Your task to perform on an android device: Search for sony triple a on amazon.com, select the first entry, add it to the cart, then select checkout. Image 0: 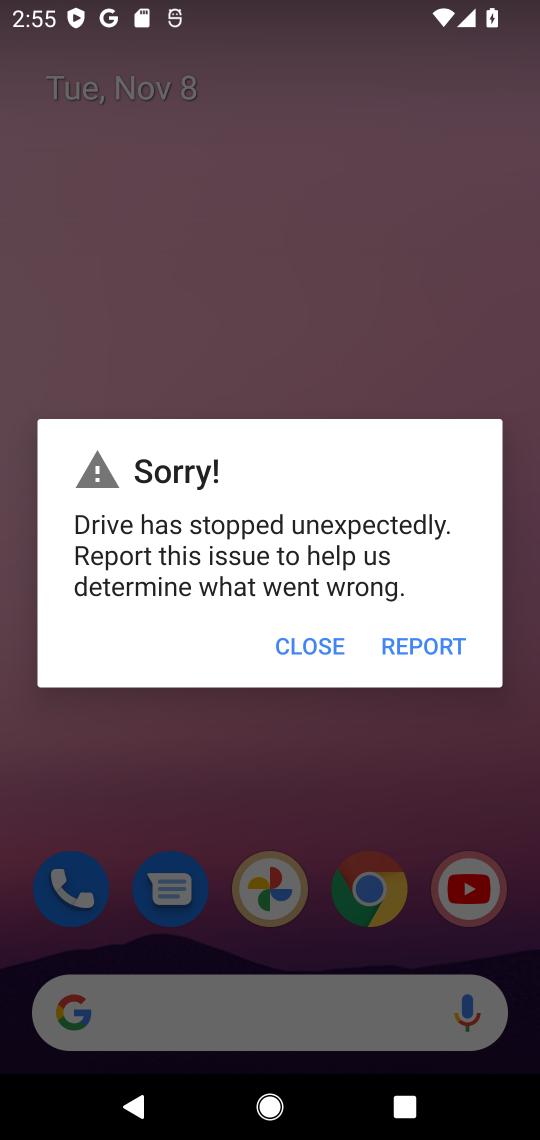
Step 0: press home button
Your task to perform on an android device: Search for sony triple a on amazon.com, select the first entry, add it to the cart, then select checkout. Image 1: 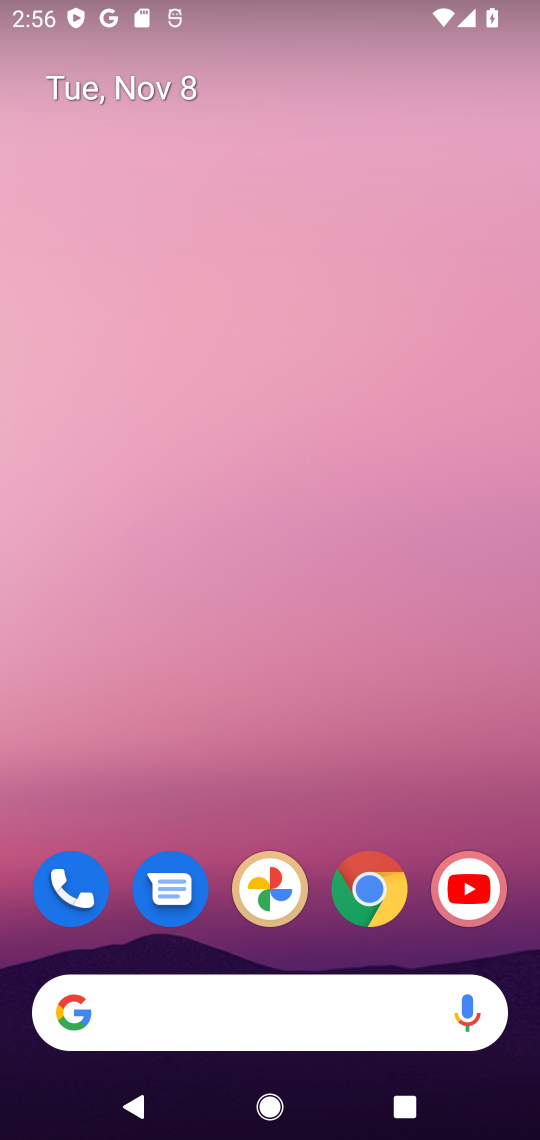
Step 1: click (382, 893)
Your task to perform on an android device: Search for sony triple a on amazon.com, select the first entry, add it to the cart, then select checkout. Image 2: 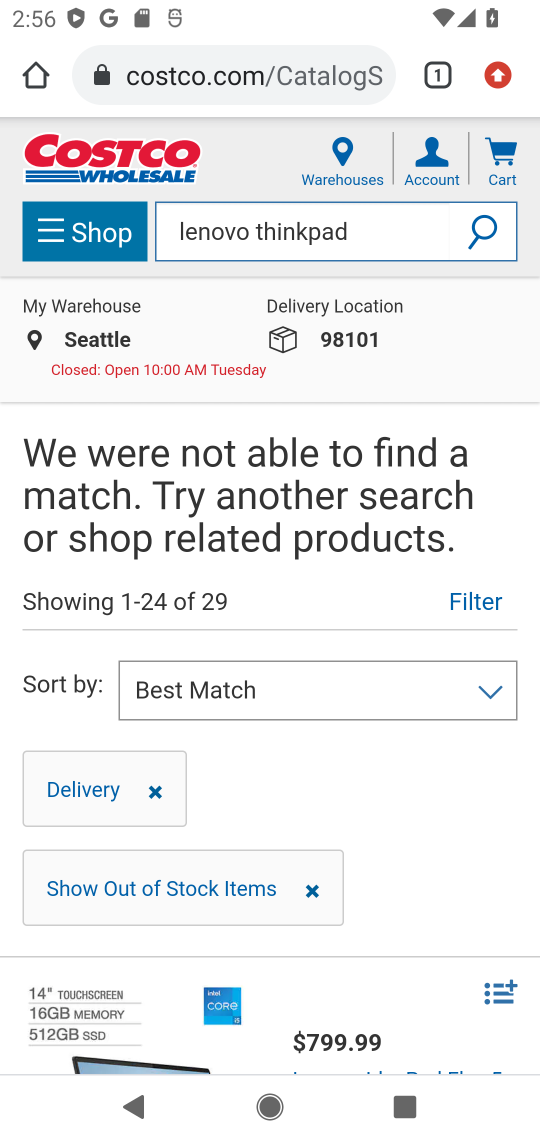
Step 2: click (221, 85)
Your task to perform on an android device: Search for sony triple a on amazon.com, select the first entry, add it to the cart, then select checkout. Image 3: 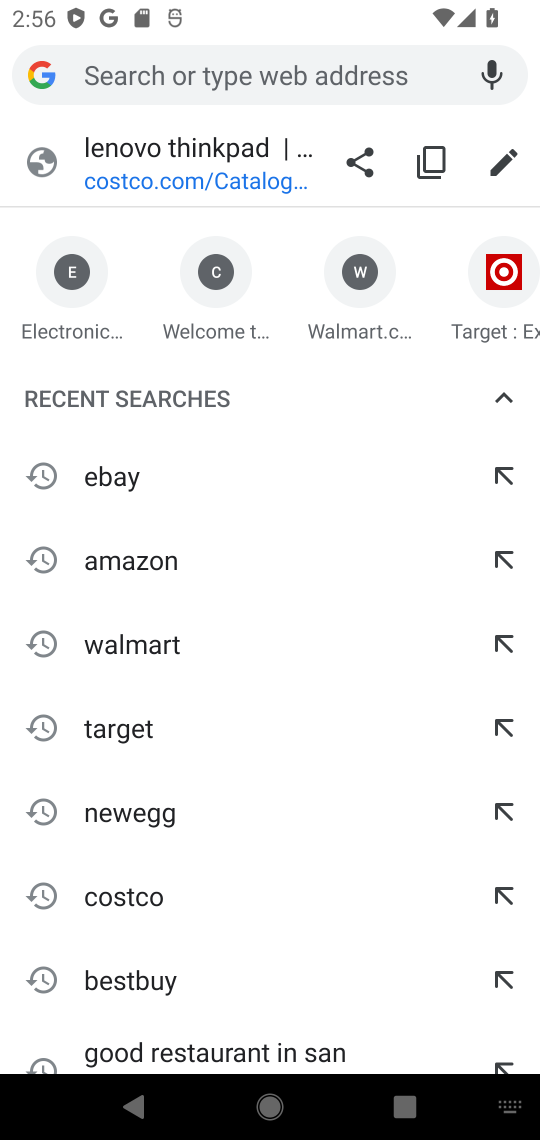
Step 3: type "amazon.com"
Your task to perform on an android device: Search for sony triple a on amazon.com, select the first entry, add it to the cart, then select checkout. Image 4: 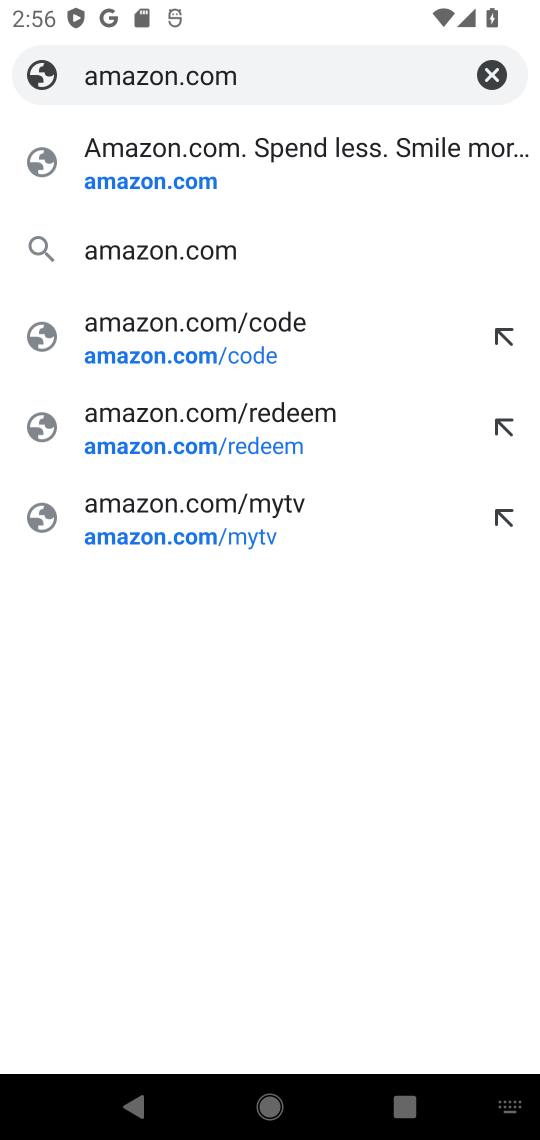
Step 4: click (160, 190)
Your task to perform on an android device: Search for sony triple a on amazon.com, select the first entry, add it to the cart, then select checkout. Image 5: 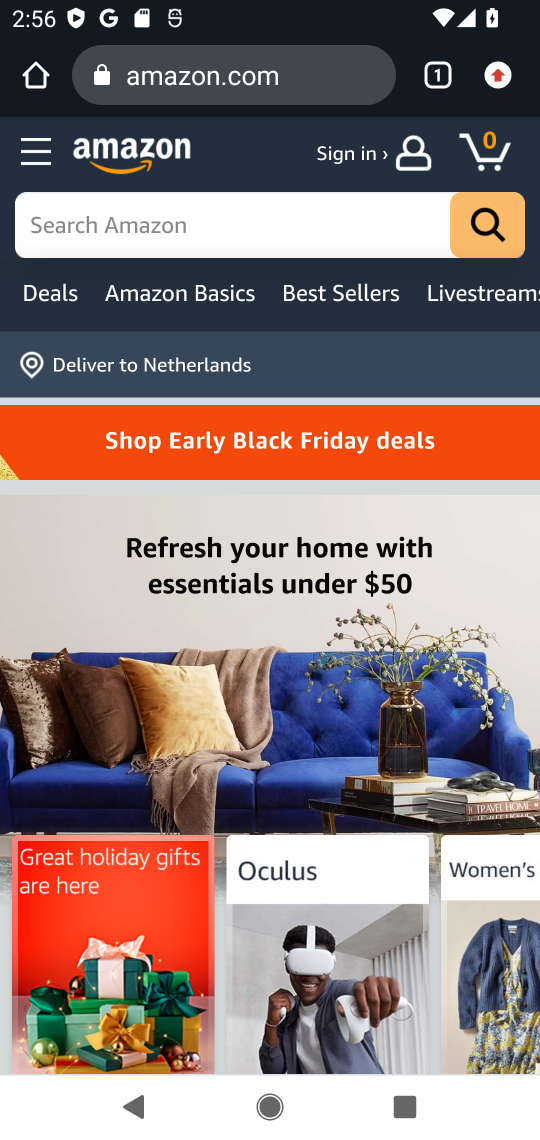
Step 5: click (94, 242)
Your task to perform on an android device: Search for sony triple a on amazon.com, select the first entry, add it to the cart, then select checkout. Image 6: 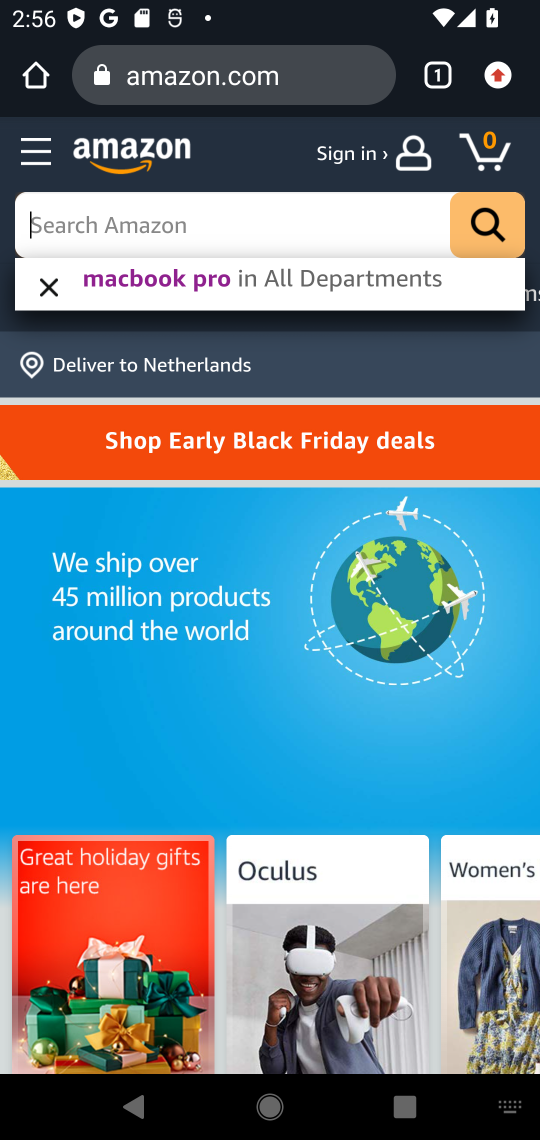
Step 6: type "sony triple a"
Your task to perform on an android device: Search for sony triple a on amazon.com, select the first entry, add it to the cart, then select checkout. Image 7: 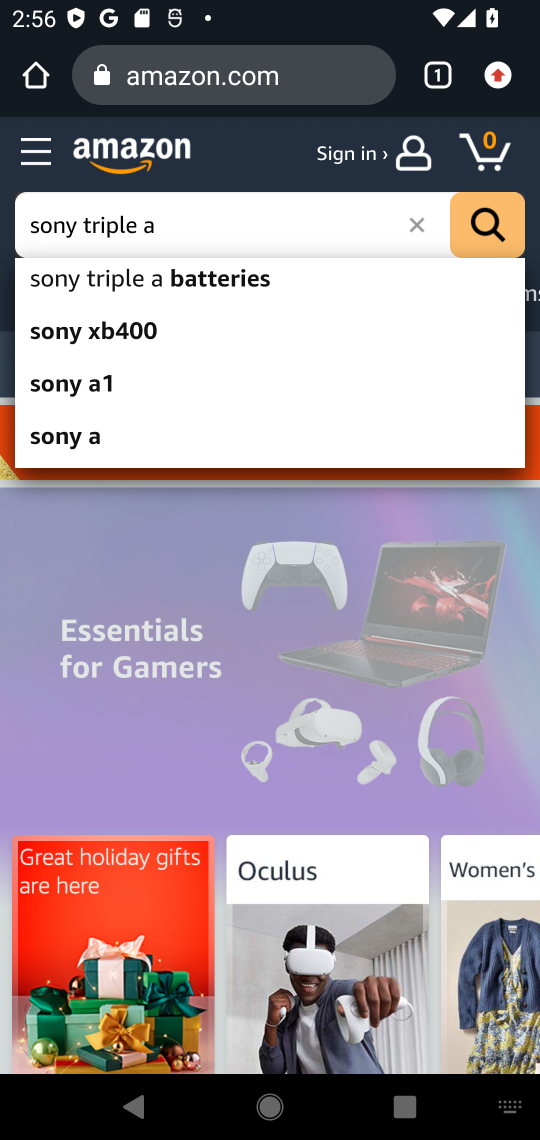
Step 7: click (485, 233)
Your task to perform on an android device: Search for sony triple a on amazon.com, select the first entry, add it to the cart, then select checkout. Image 8: 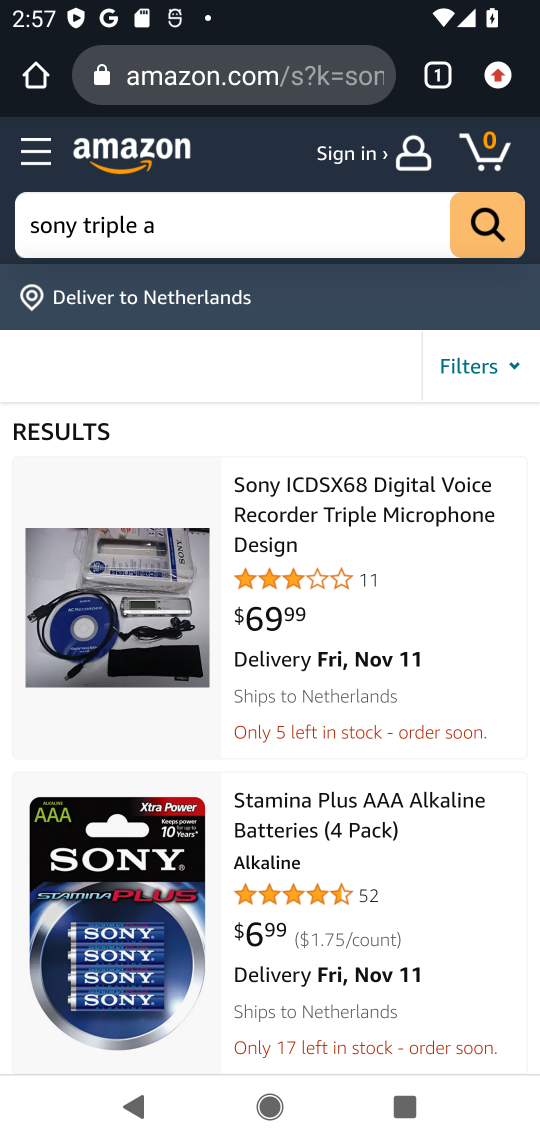
Step 8: task complete